Your task to perform on an android device: turn off javascript in the chrome app Image 0: 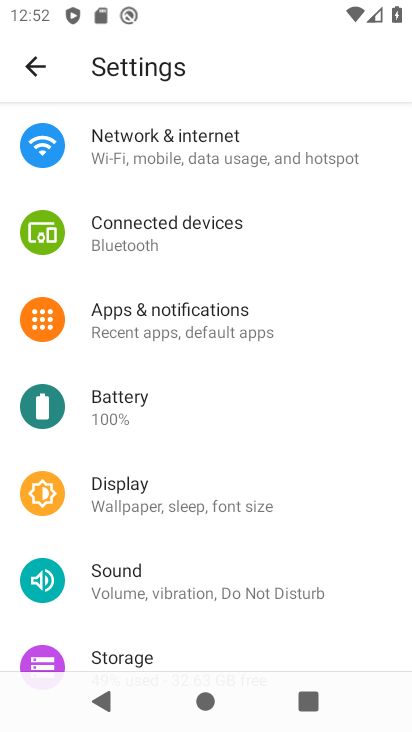
Step 0: press home button
Your task to perform on an android device: turn off javascript in the chrome app Image 1: 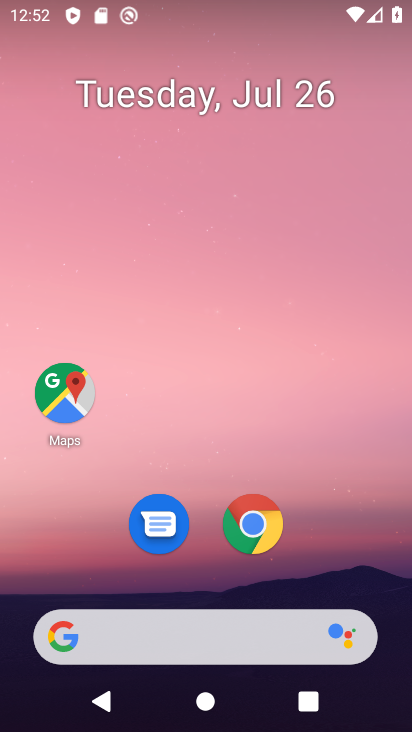
Step 1: click (268, 535)
Your task to perform on an android device: turn off javascript in the chrome app Image 2: 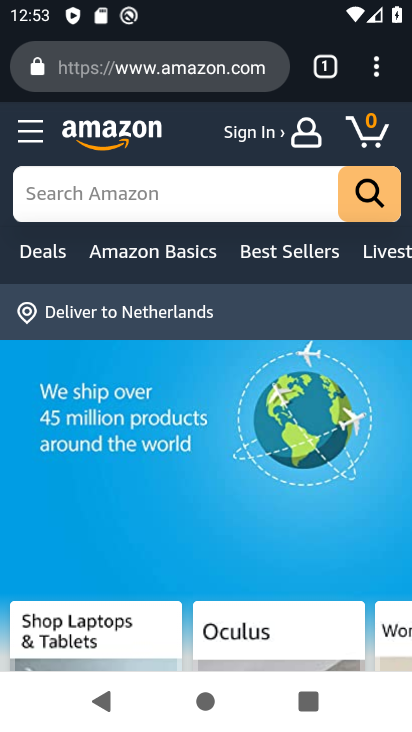
Step 2: press home button
Your task to perform on an android device: turn off javascript in the chrome app Image 3: 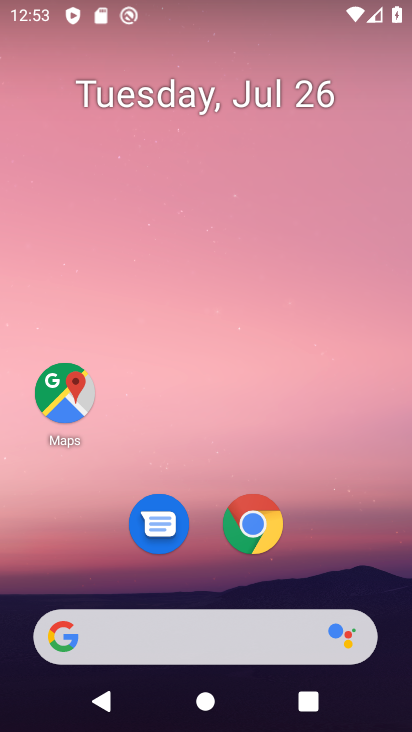
Step 3: click (263, 522)
Your task to perform on an android device: turn off javascript in the chrome app Image 4: 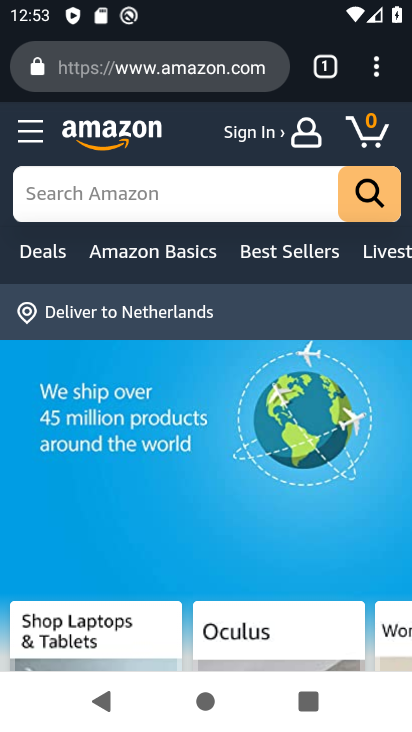
Step 4: click (380, 72)
Your task to perform on an android device: turn off javascript in the chrome app Image 5: 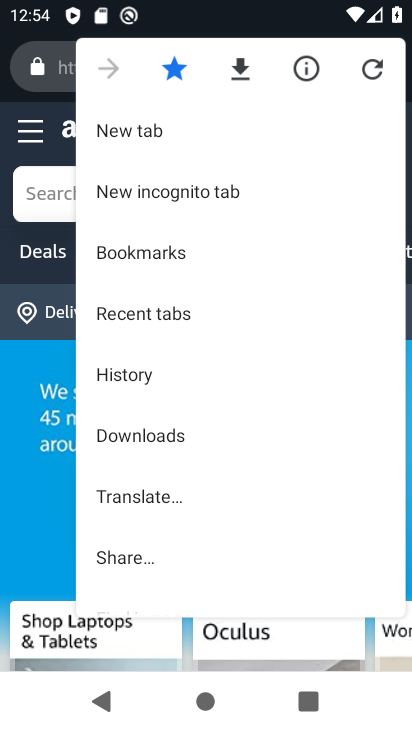
Step 5: drag from (198, 476) to (221, 148)
Your task to perform on an android device: turn off javascript in the chrome app Image 6: 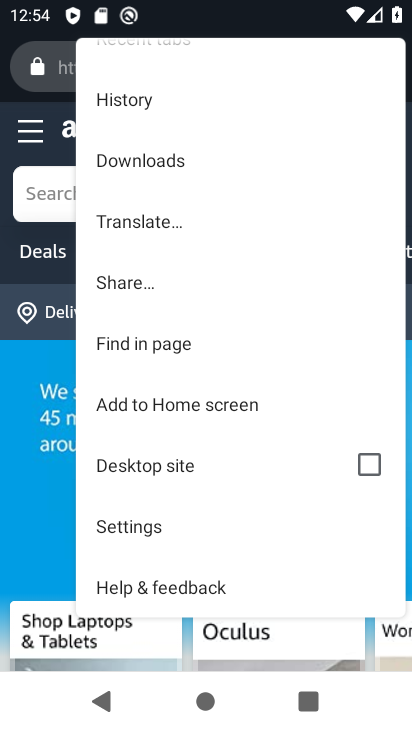
Step 6: click (163, 526)
Your task to perform on an android device: turn off javascript in the chrome app Image 7: 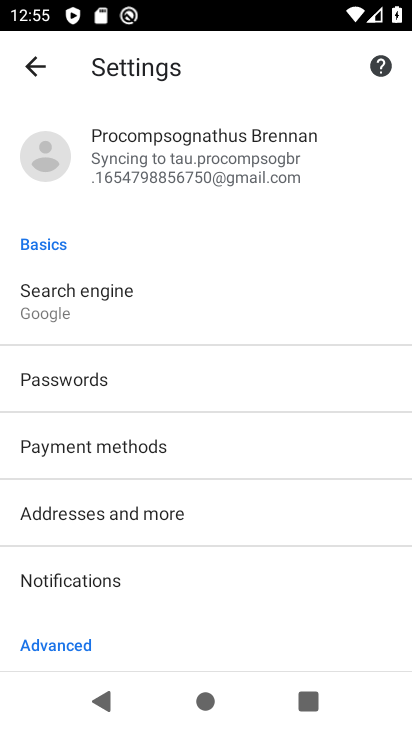
Step 7: drag from (236, 568) to (204, 298)
Your task to perform on an android device: turn off javascript in the chrome app Image 8: 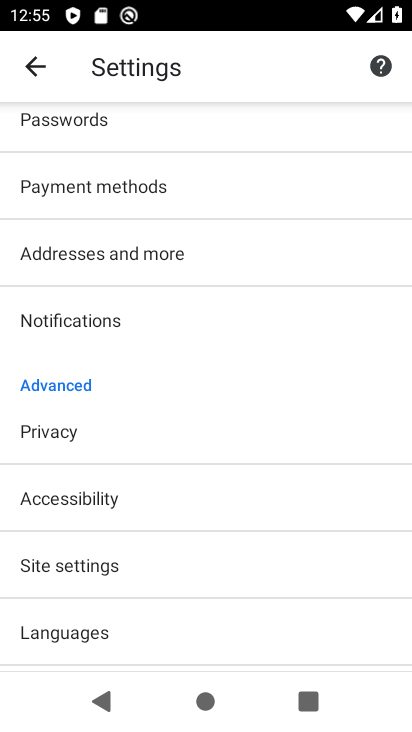
Step 8: click (97, 561)
Your task to perform on an android device: turn off javascript in the chrome app Image 9: 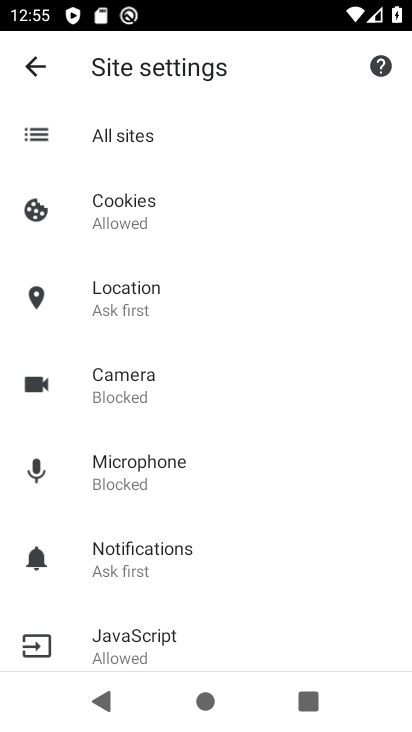
Step 9: click (168, 641)
Your task to perform on an android device: turn off javascript in the chrome app Image 10: 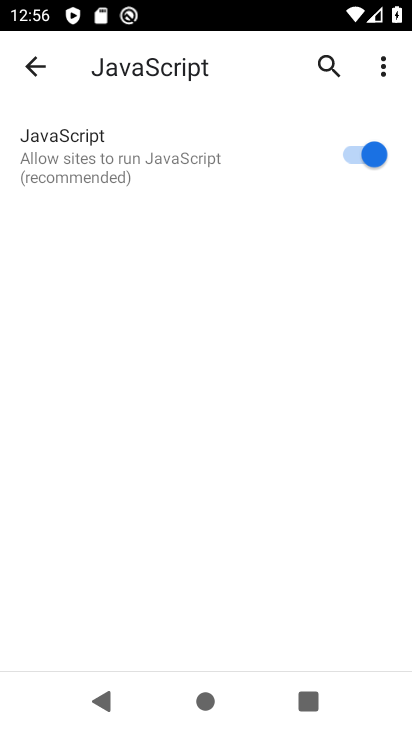
Step 10: click (355, 151)
Your task to perform on an android device: turn off javascript in the chrome app Image 11: 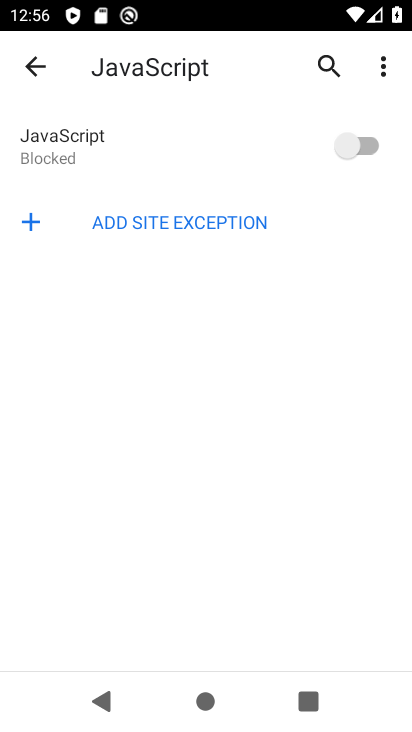
Step 11: task complete